Your task to perform on an android device: Open the web browser Image 0: 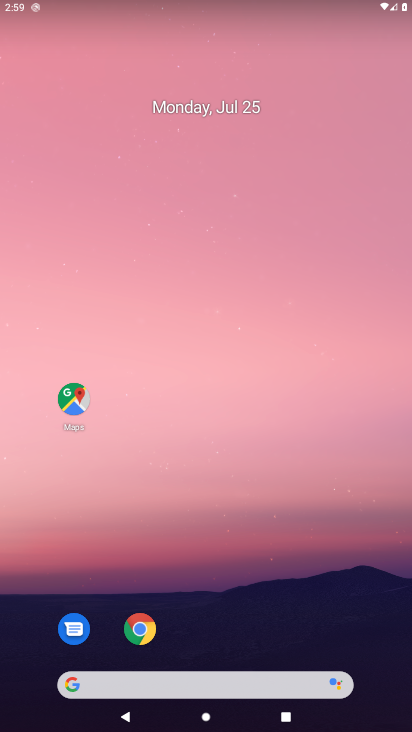
Step 0: drag from (30, 457) to (401, 475)
Your task to perform on an android device: Open the web browser Image 1: 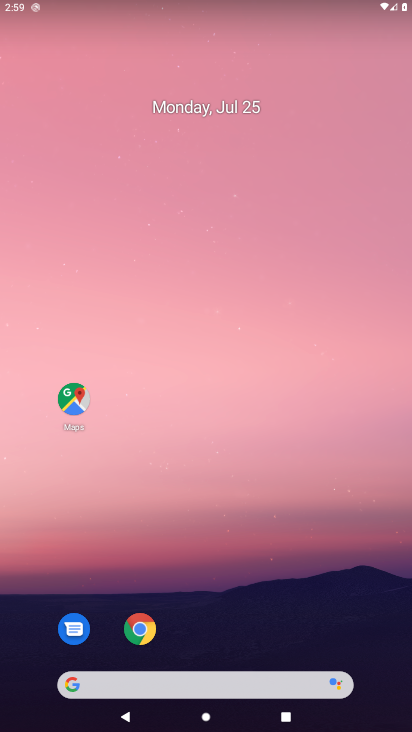
Step 1: task complete